Your task to perform on an android device: open app "Google Keep" (install if not already installed) Image 0: 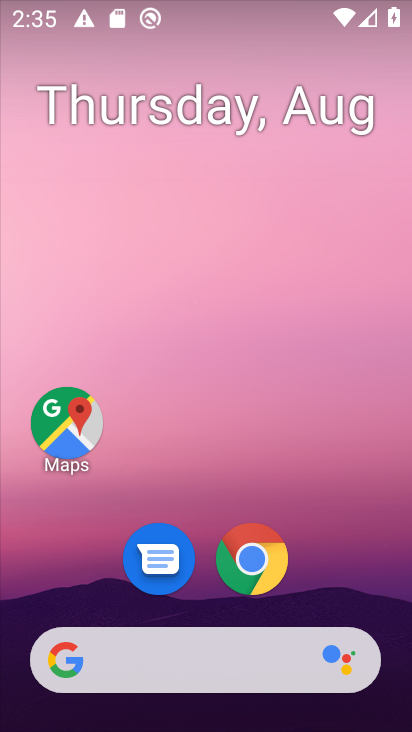
Step 0: drag from (83, 571) to (185, 78)
Your task to perform on an android device: open app "Google Keep" (install if not already installed) Image 1: 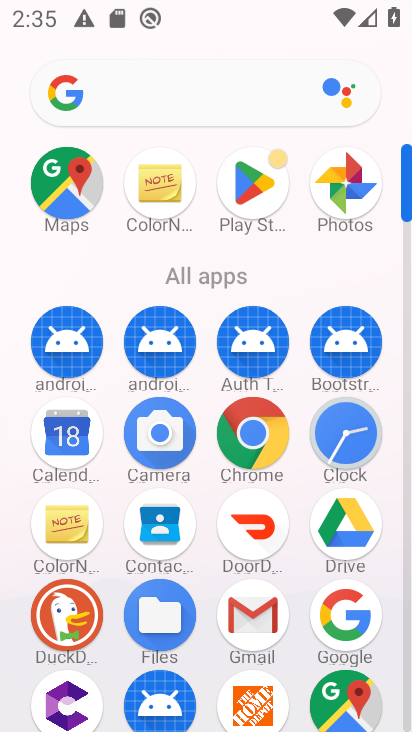
Step 1: click (223, 153)
Your task to perform on an android device: open app "Google Keep" (install if not already installed) Image 2: 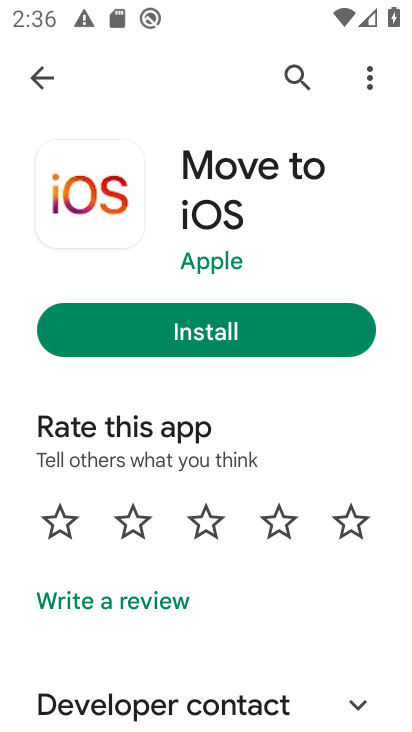
Step 2: click (288, 79)
Your task to perform on an android device: open app "Google Keep" (install if not already installed) Image 3: 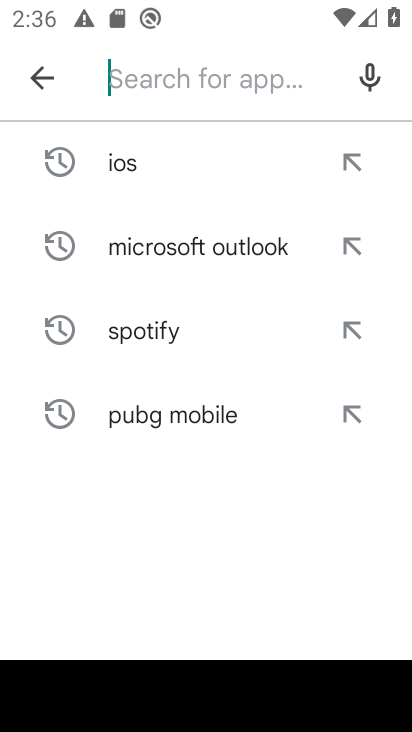
Step 3: click (131, 78)
Your task to perform on an android device: open app "Google Keep" (install if not already installed) Image 4: 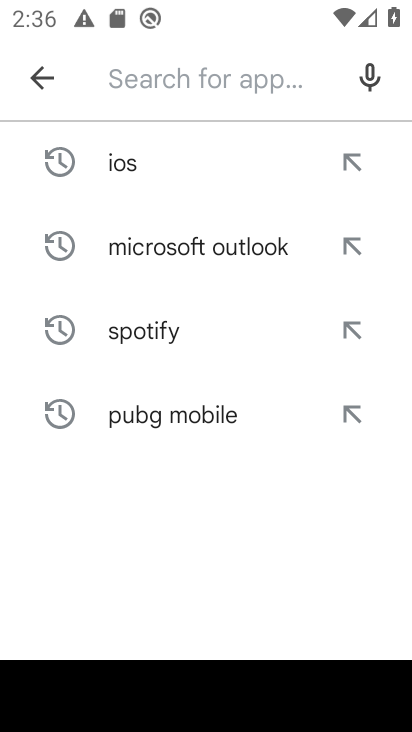
Step 4: type "goggle keep"
Your task to perform on an android device: open app "Google Keep" (install if not already installed) Image 5: 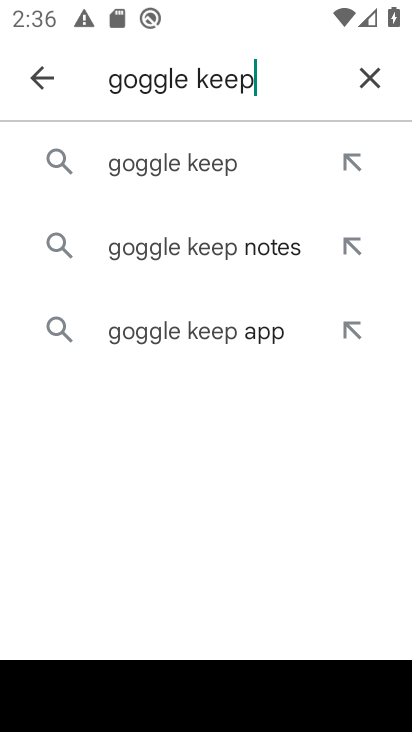
Step 5: click (167, 167)
Your task to perform on an android device: open app "Google Keep" (install if not already installed) Image 6: 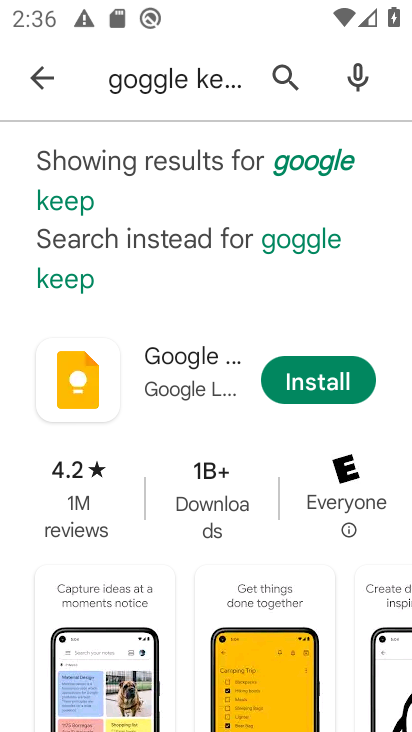
Step 6: click (322, 381)
Your task to perform on an android device: open app "Google Keep" (install if not already installed) Image 7: 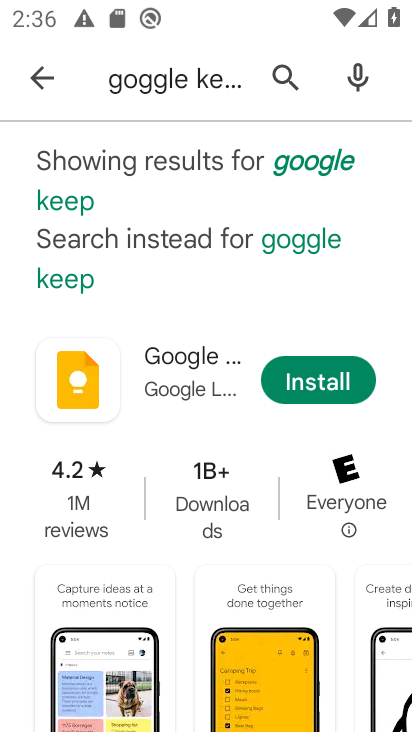
Step 7: click (316, 377)
Your task to perform on an android device: open app "Google Keep" (install if not already installed) Image 8: 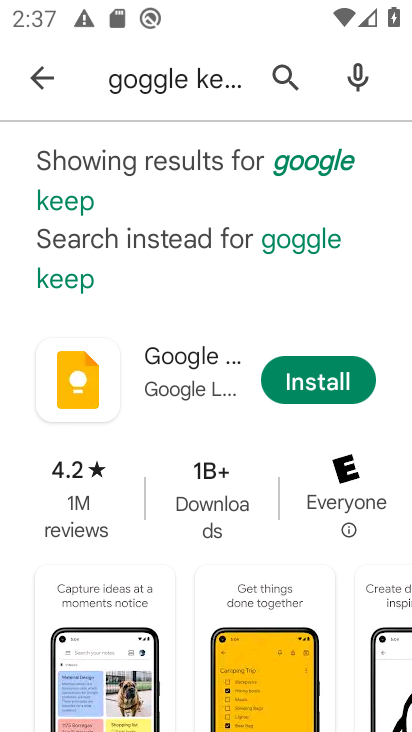
Step 8: click (317, 384)
Your task to perform on an android device: open app "Google Keep" (install if not already installed) Image 9: 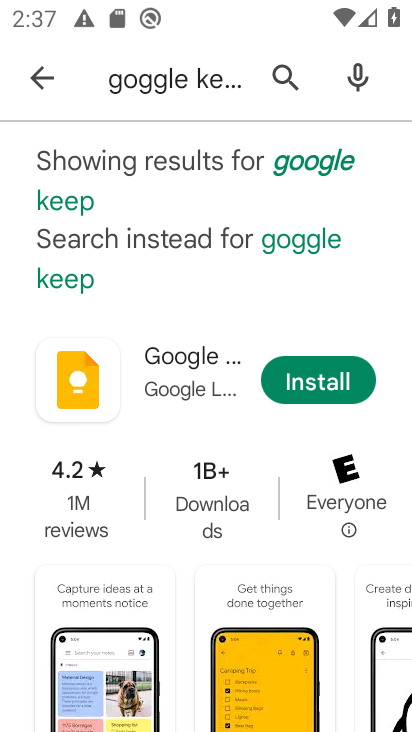
Step 9: task complete